Your task to perform on an android device: change your default location settings in chrome Image 0: 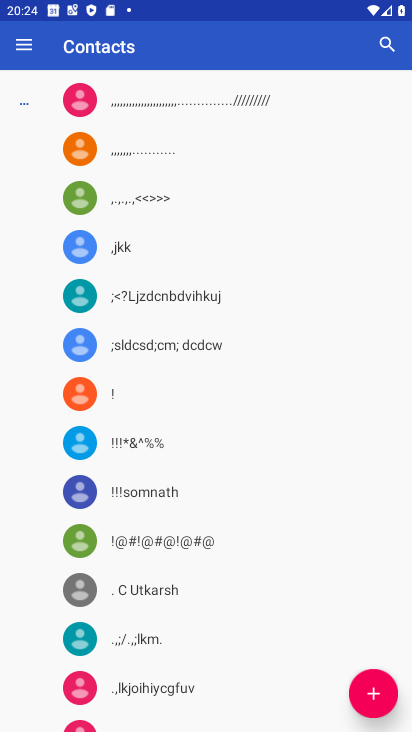
Step 0: press home button
Your task to perform on an android device: change your default location settings in chrome Image 1: 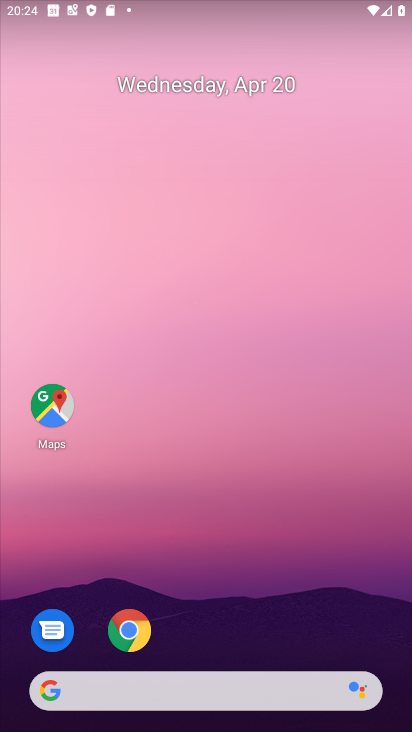
Step 1: click (130, 641)
Your task to perform on an android device: change your default location settings in chrome Image 2: 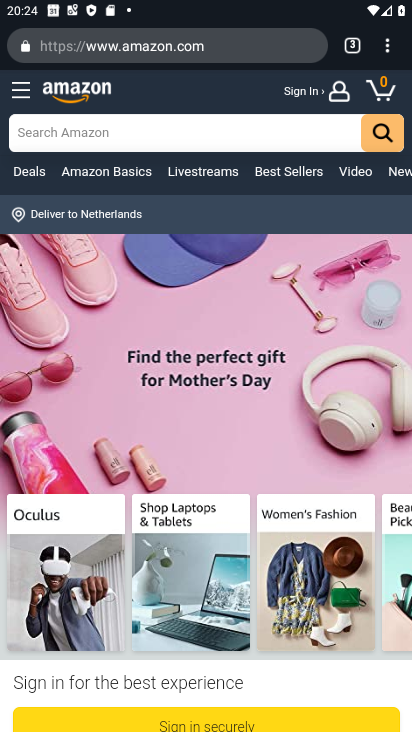
Step 2: click (391, 48)
Your task to perform on an android device: change your default location settings in chrome Image 3: 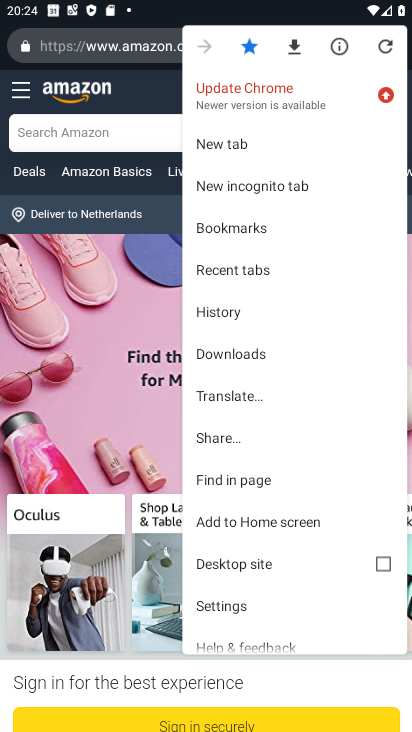
Step 3: click (248, 602)
Your task to perform on an android device: change your default location settings in chrome Image 4: 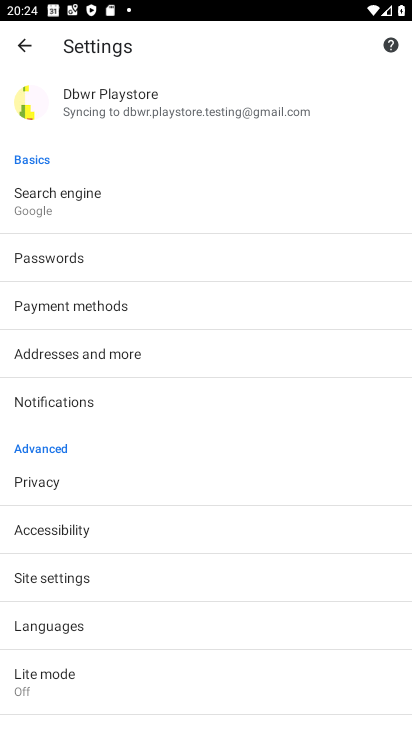
Step 4: click (69, 574)
Your task to perform on an android device: change your default location settings in chrome Image 5: 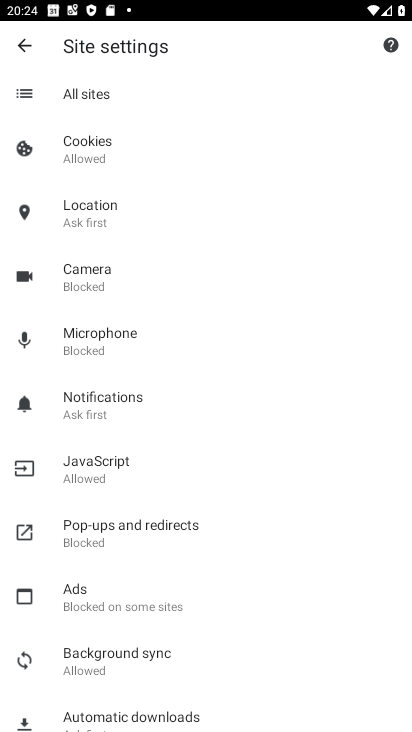
Step 5: click (109, 207)
Your task to perform on an android device: change your default location settings in chrome Image 6: 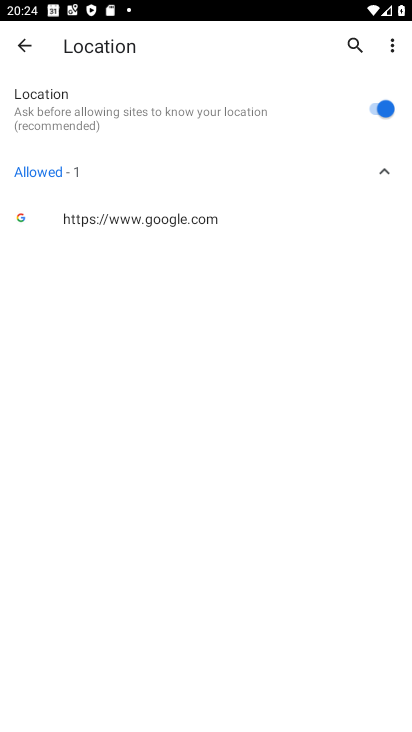
Step 6: click (367, 113)
Your task to perform on an android device: change your default location settings in chrome Image 7: 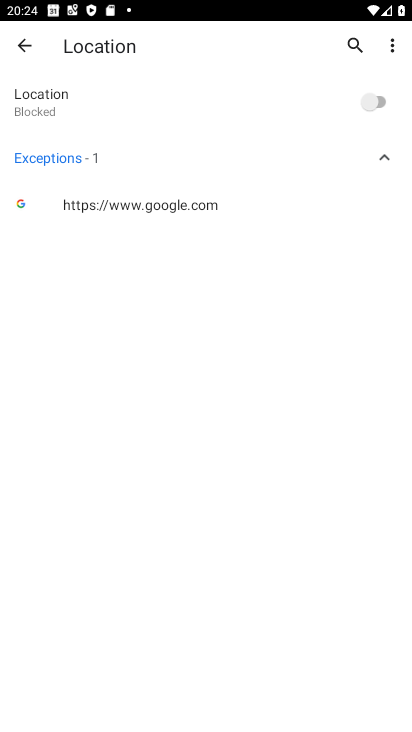
Step 7: task complete